Your task to perform on an android device: Open the calendar app, open the side menu, and click the "Day" option Image 0: 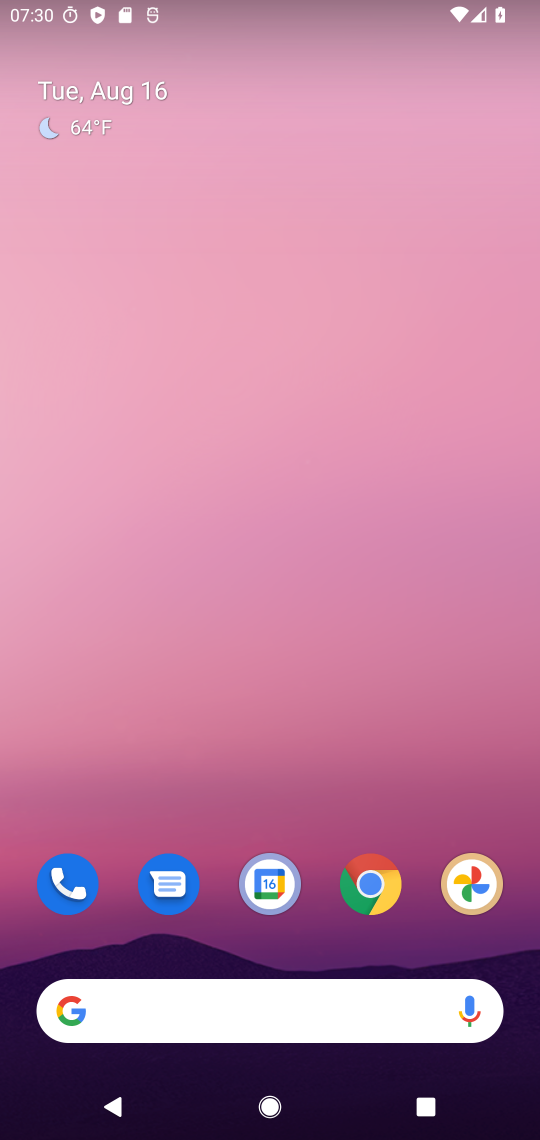
Step 0: press home button
Your task to perform on an android device: Open the calendar app, open the side menu, and click the "Day" option Image 1: 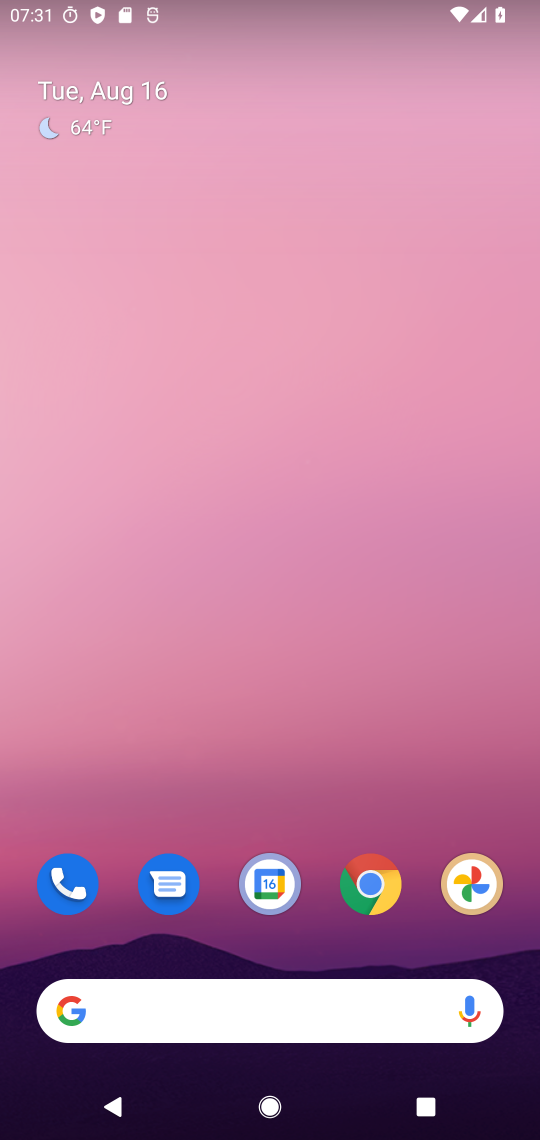
Step 1: drag from (299, 792) to (352, 80)
Your task to perform on an android device: Open the calendar app, open the side menu, and click the "Day" option Image 2: 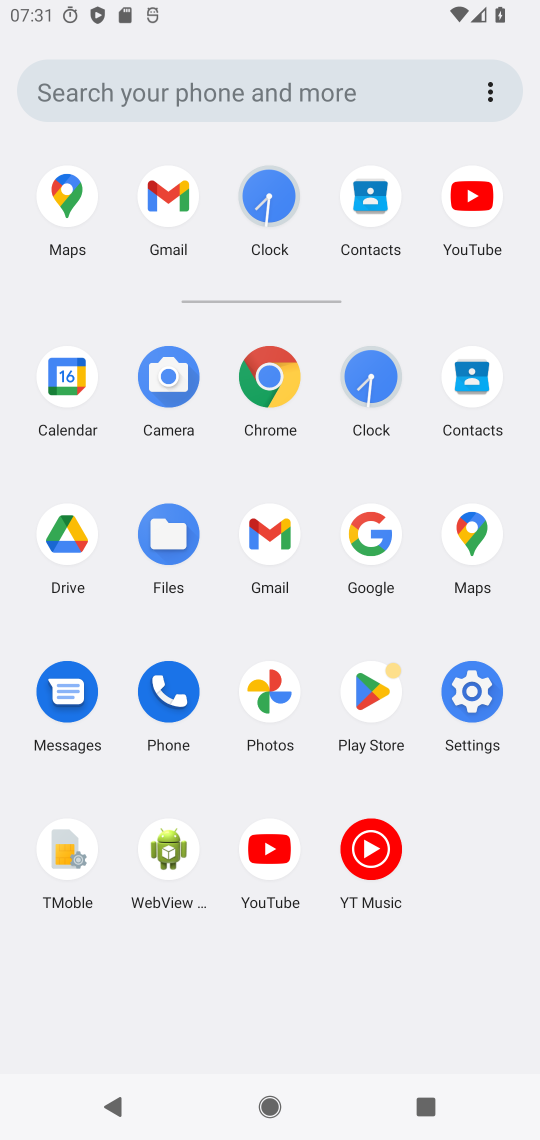
Step 2: click (73, 385)
Your task to perform on an android device: Open the calendar app, open the side menu, and click the "Day" option Image 3: 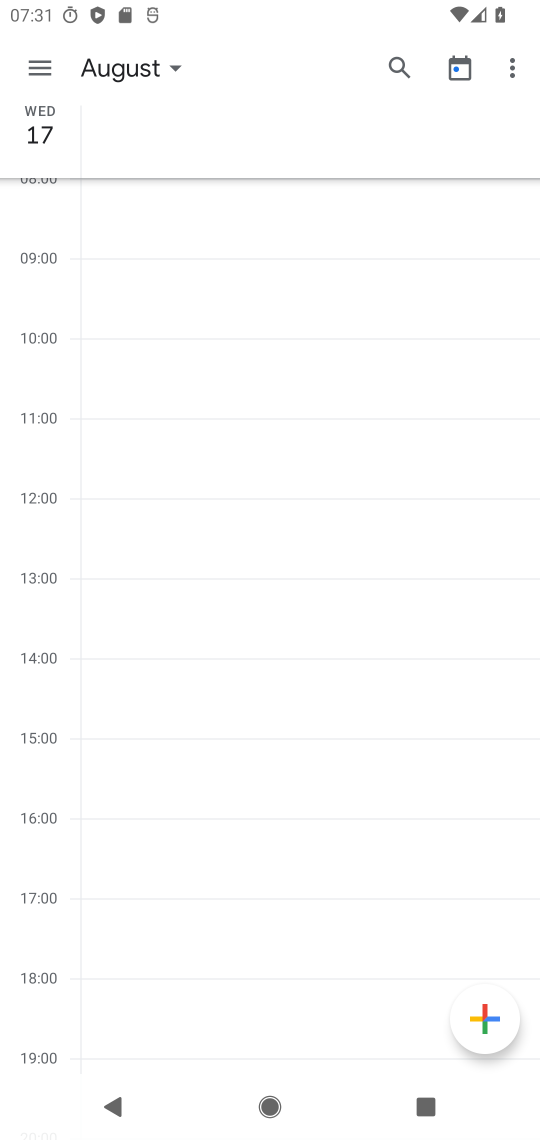
Step 3: click (34, 63)
Your task to perform on an android device: Open the calendar app, open the side menu, and click the "Day" option Image 4: 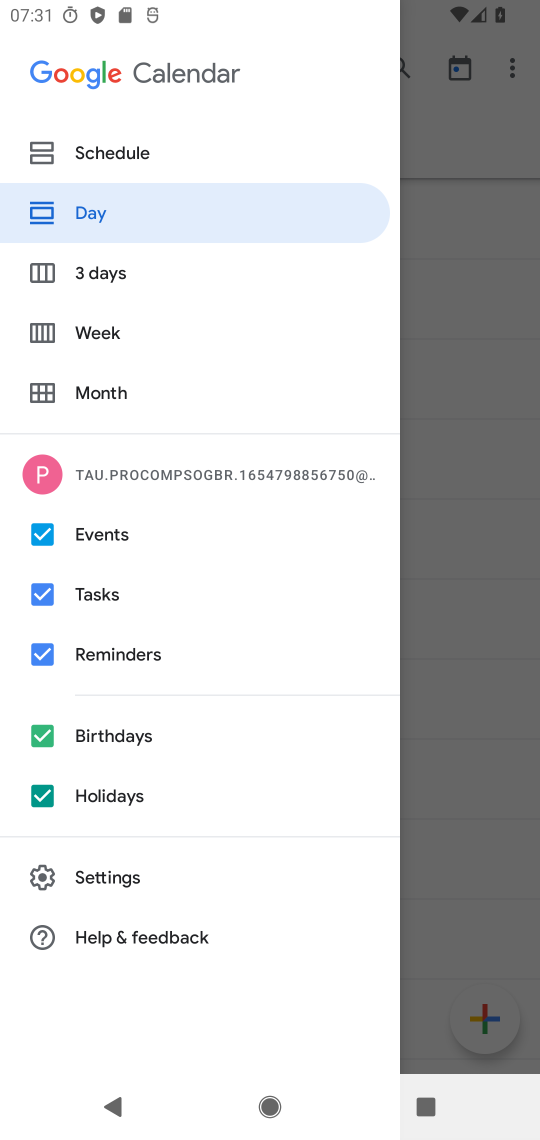
Step 4: click (95, 200)
Your task to perform on an android device: Open the calendar app, open the side menu, and click the "Day" option Image 5: 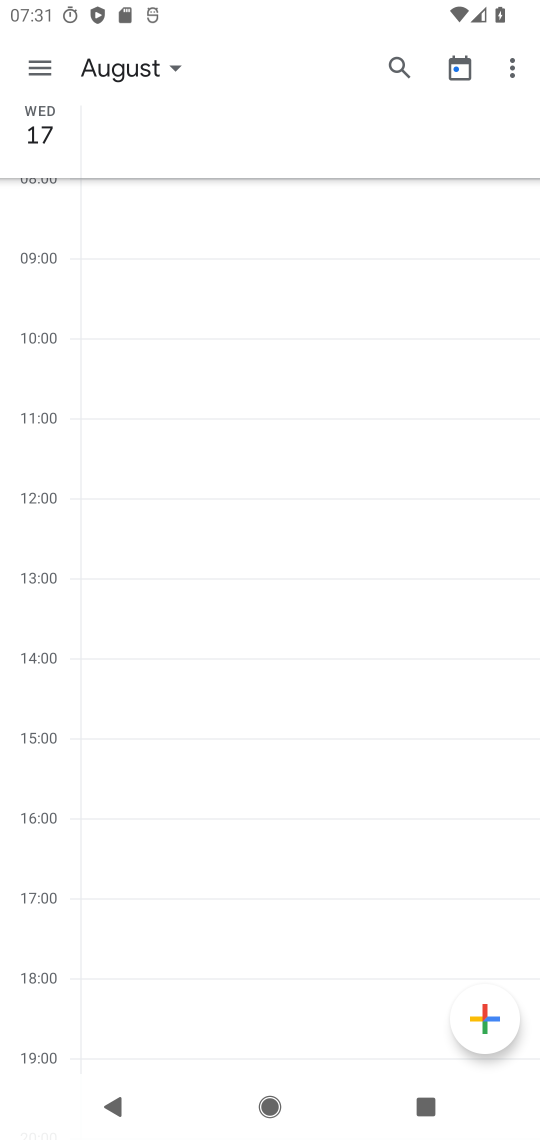
Step 5: task complete